Your task to perform on an android device: Open Yahoo.com Image 0: 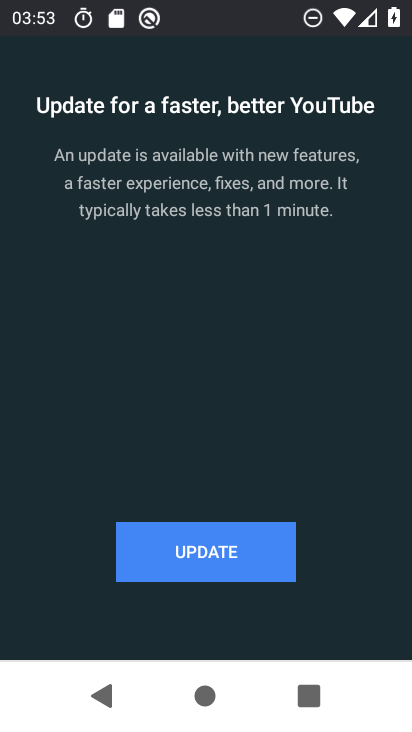
Step 0: press home button
Your task to perform on an android device: Open Yahoo.com Image 1: 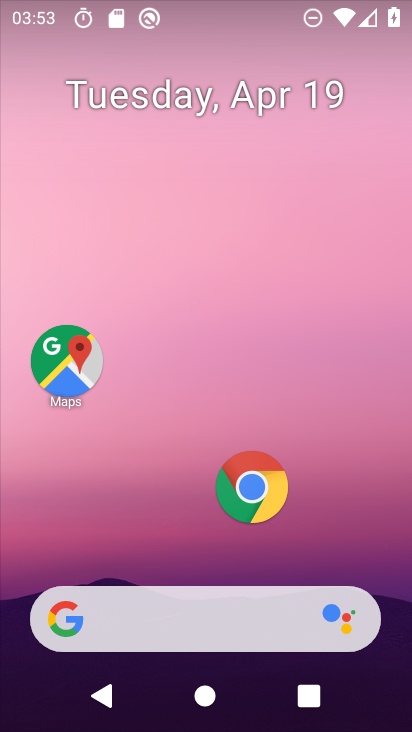
Step 1: click (236, 486)
Your task to perform on an android device: Open Yahoo.com Image 2: 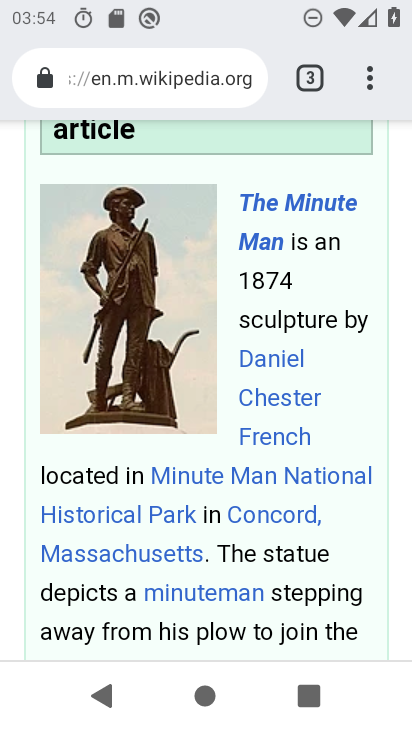
Step 2: click (317, 70)
Your task to perform on an android device: Open Yahoo.com Image 3: 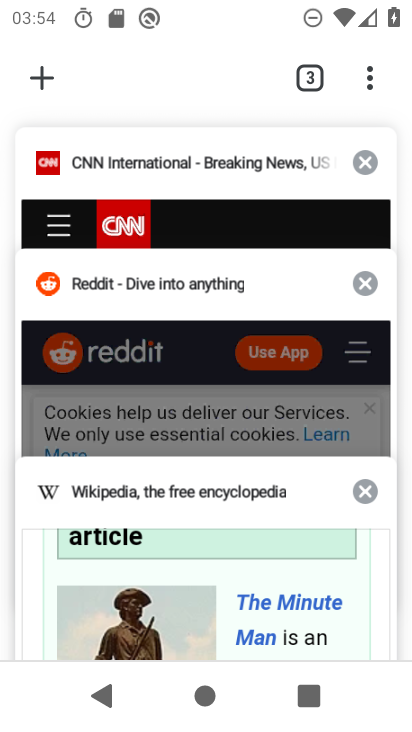
Step 3: click (31, 75)
Your task to perform on an android device: Open Yahoo.com Image 4: 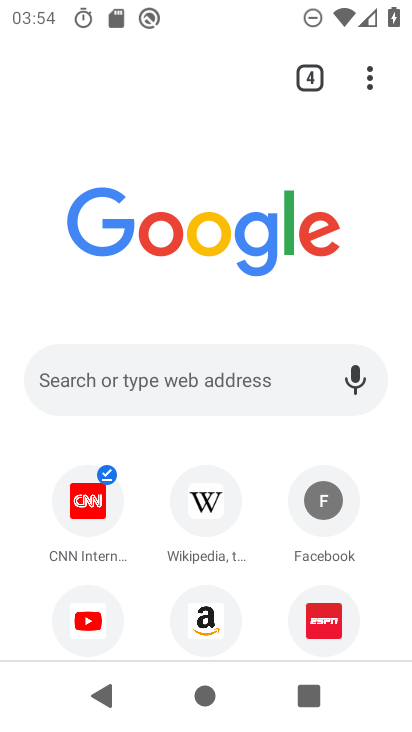
Step 4: click (125, 380)
Your task to perform on an android device: Open Yahoo.com Image 5: 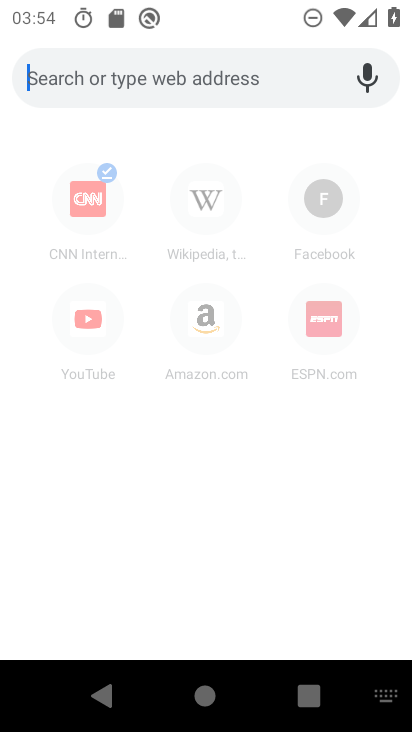
Step 5: click (84, 69)
Your task to perform on an android device: Open Yahoo.com Image 6: 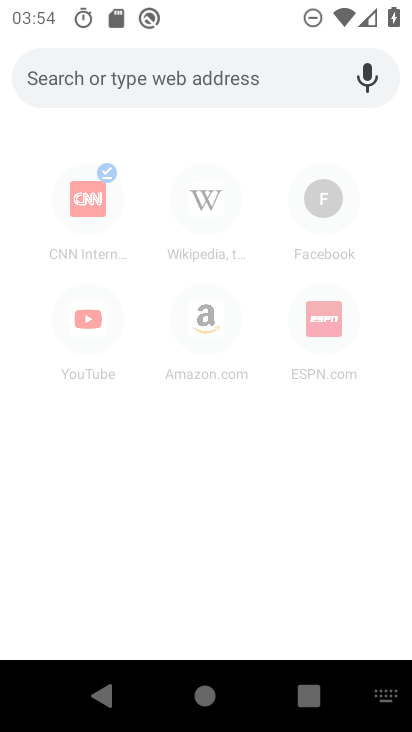
Step 6: type "yahoo.com"
Your task to perform on an android device: Open Yahoo.com Image 7: 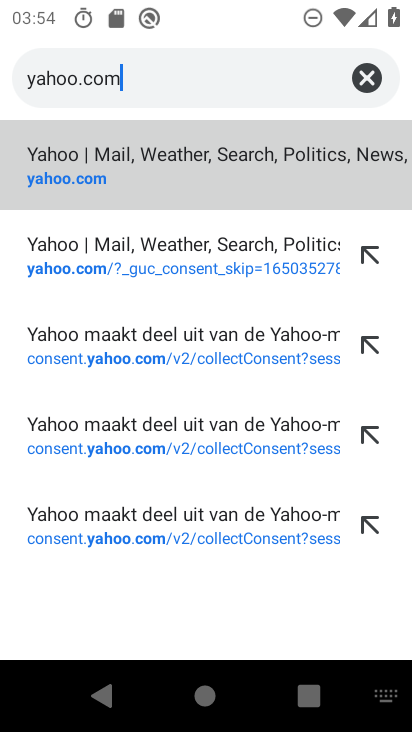
Step 7: click (223, 175)
Your task to perform on an android device: Open Yahoo.com Image 8: 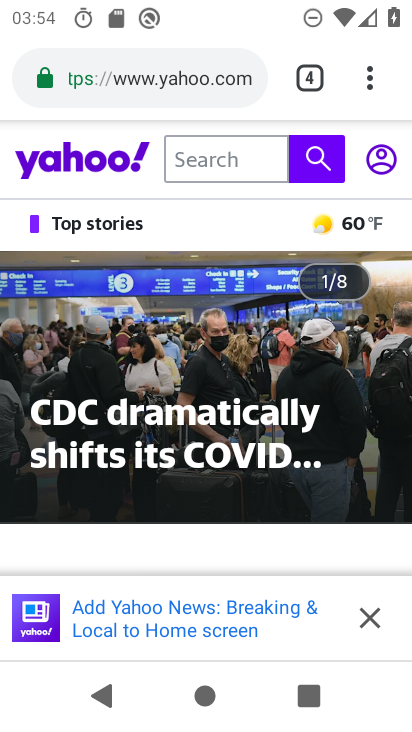
Step 8: task complete